Your task to perform on an android device: Search for the best selling coffee table on Crate & Barrel Image 0: 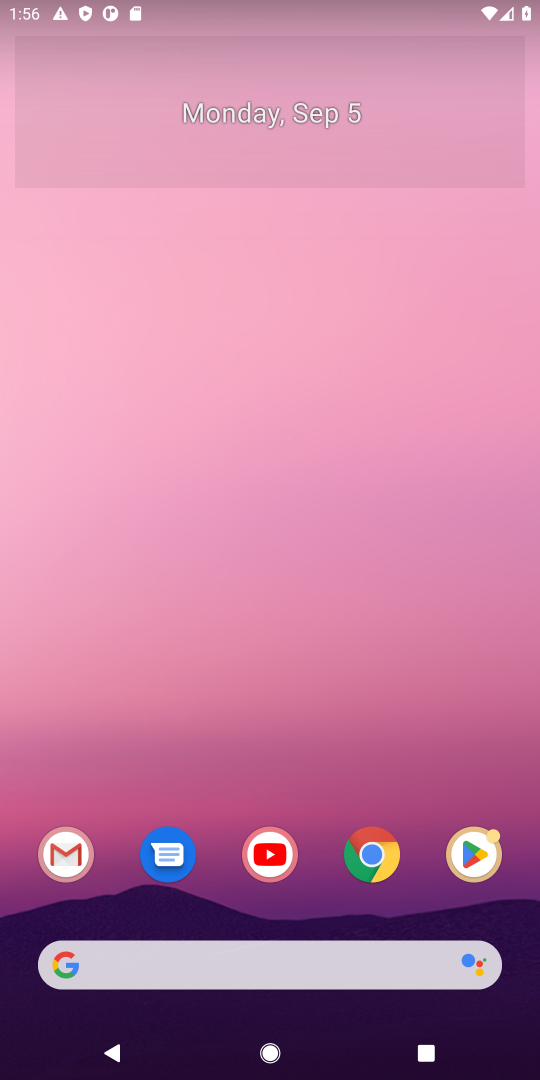
Step 0: click (386, 965)
Your task to perform on an android device: Search for the best selling coffee table on Crate & Barrel Image 1: 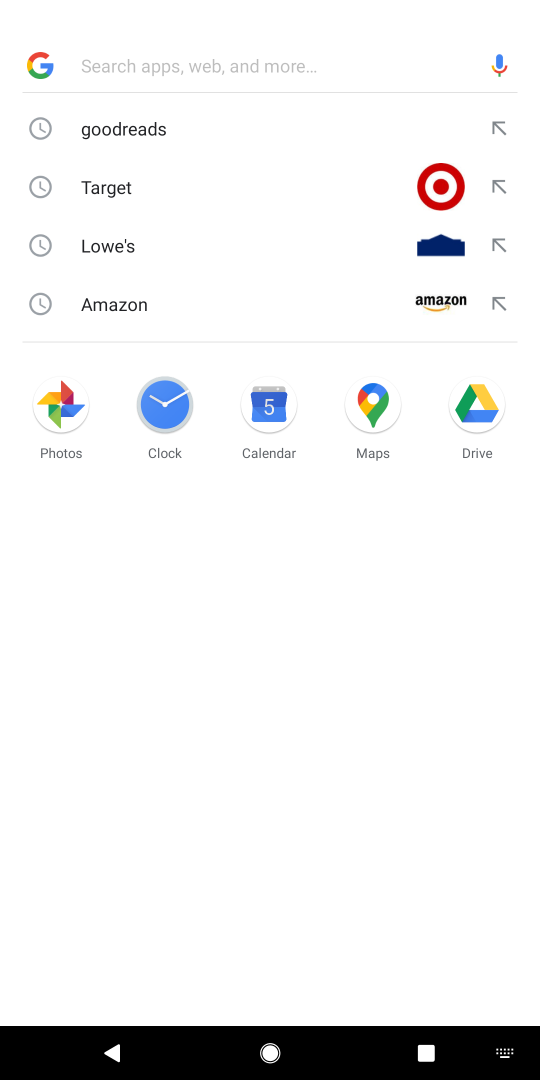
Step 1: type "crate barrel"
Your task to perform on an android device: Search for the best selling coffee table on Crate & Barrel Image 2: 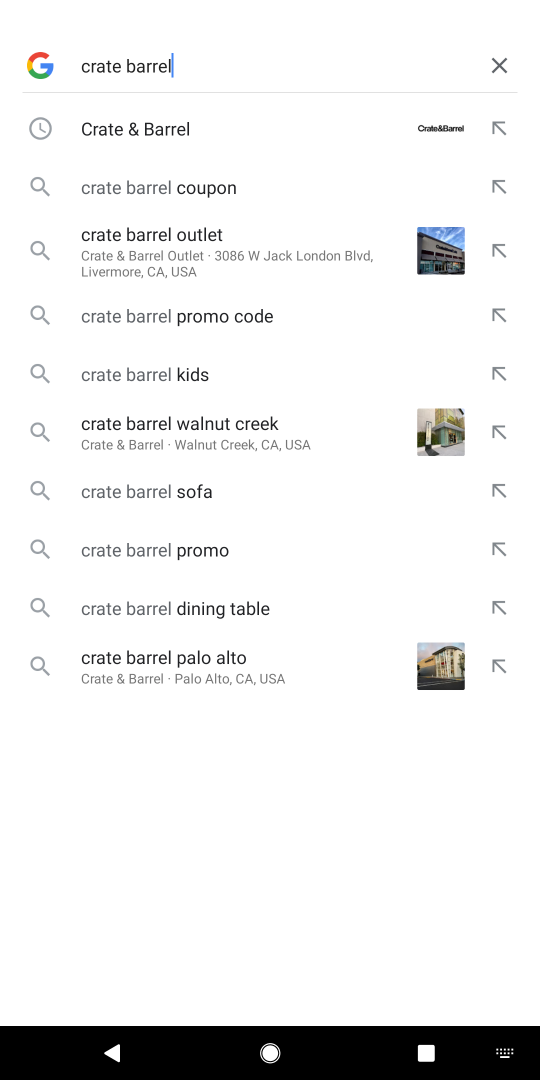
Step 2: press enter
Your task to perform on an android device: Search for the best selling coffee table on Crate & Barrel Image 3: 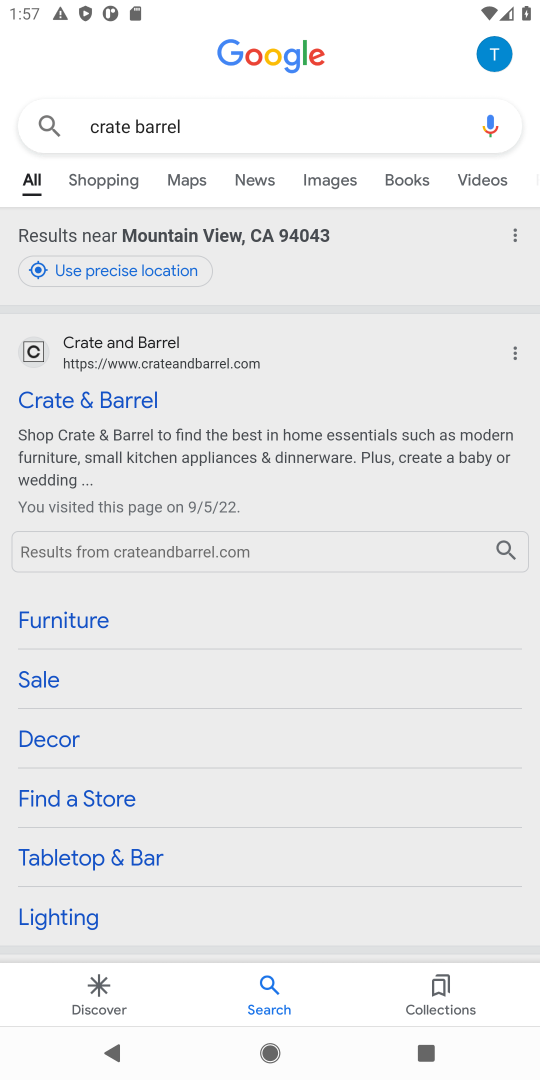
Step 3: click (125, 396)
Your task to perform on an android device: Search for the best selling coffee table on Crate & Barrel Image 4: 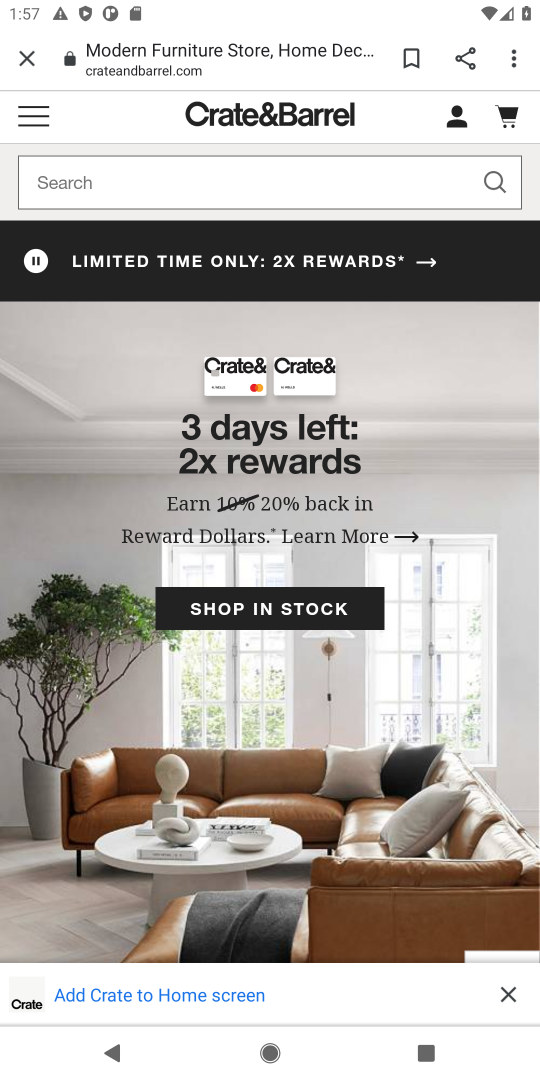
Step 4: click (132, 172)
Your task to perform on an android device: Search for the best selling coffee table on Crate & Barrel Image 5: 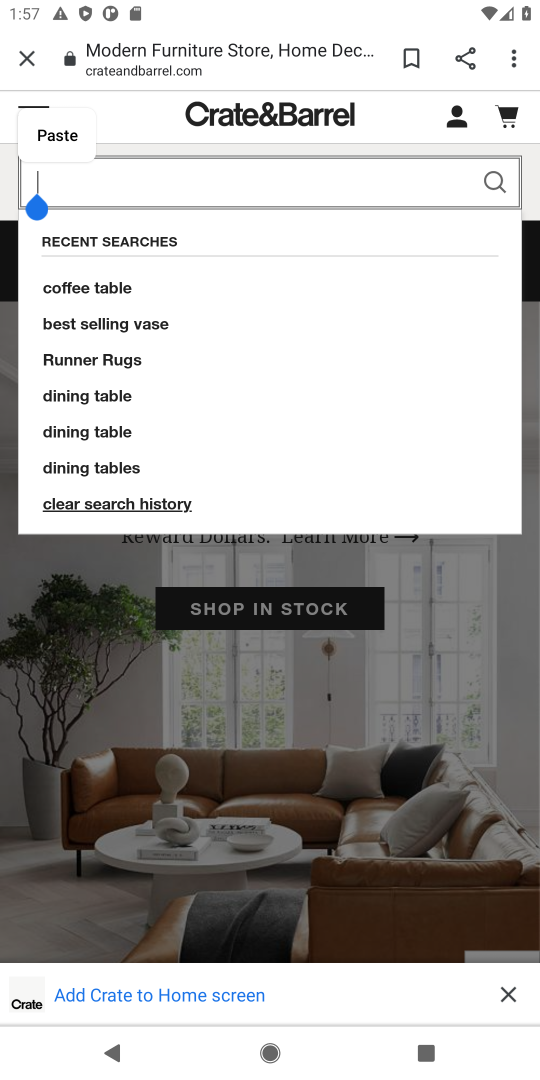
Step 5: press enter
Your task to perform on an android device: Search for the best selling coffee table on Crate & Barrel Image 6: 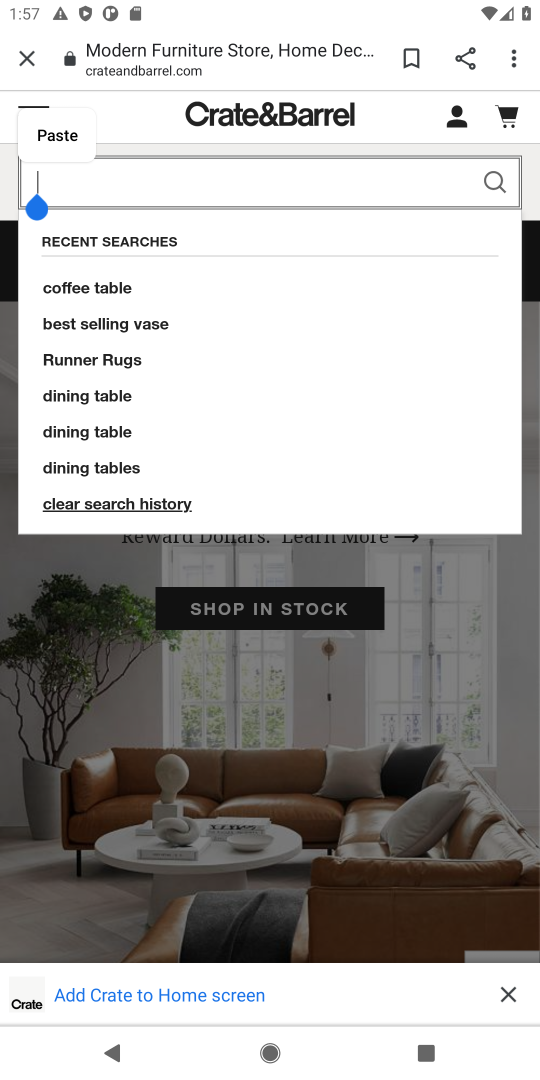
Step 6: type "best selling coffee"
Your task to perform on an android device: Search for the best selling coffee table on Crate & Barrel Image 7: 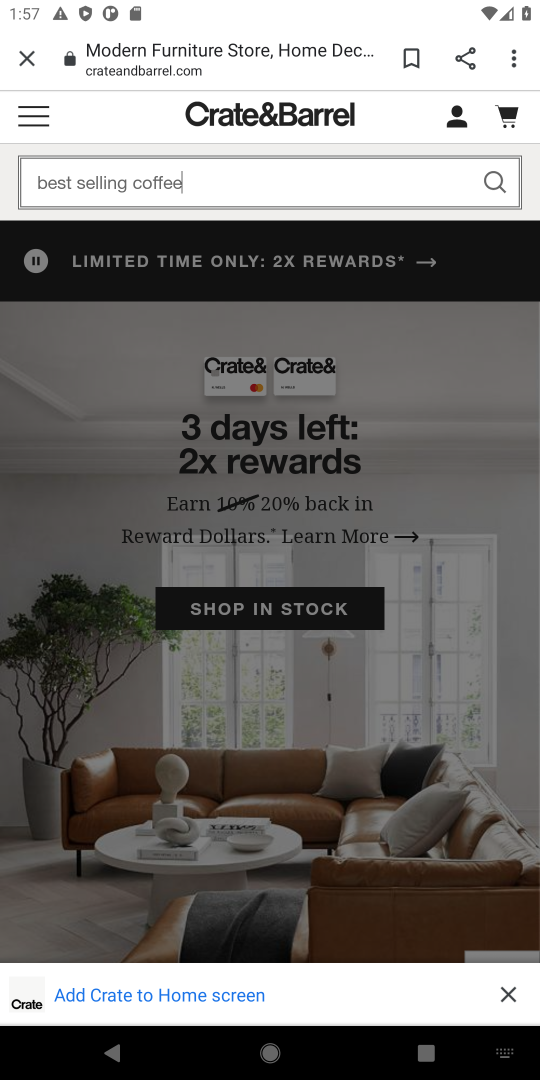
Step 7: click (498, 169)
Your task to perform on an android device: Search for the best selling coffee table on Crate & Barrel Image 8: 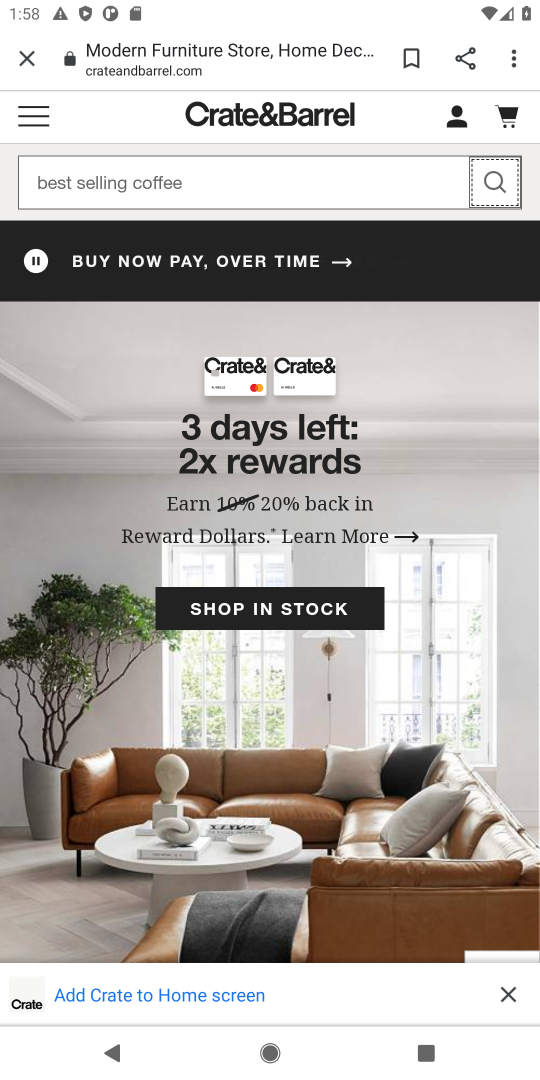
Step 8: click (496, 179)
Your task to perform on an android device: Search for the best selling coffee table on Crate & Barrel Image 9: 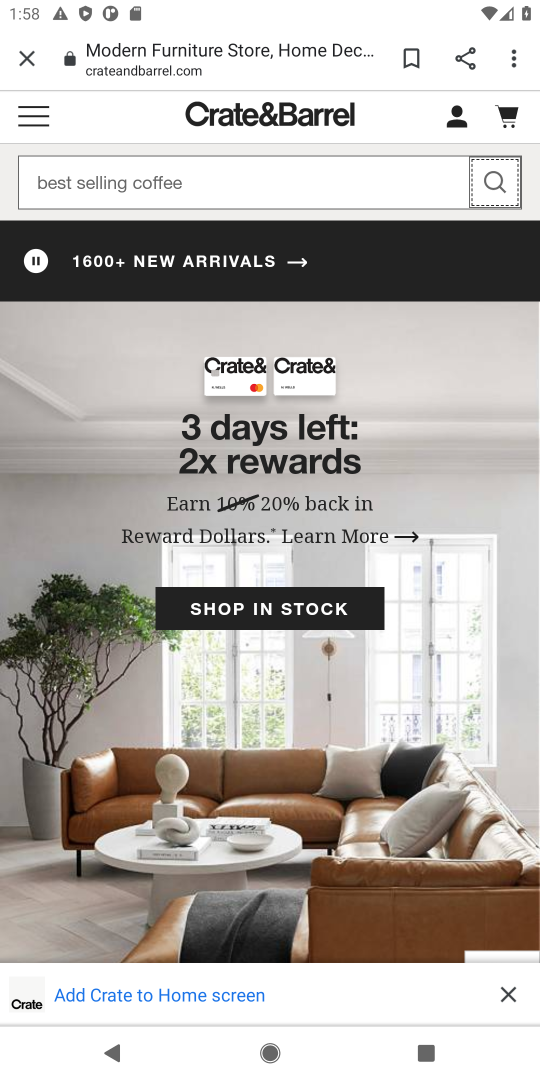
Step 9: click (488, 187)
Your task to perform on an android device: Search for the best selling coffee table on Crate & Barrel Image 10: 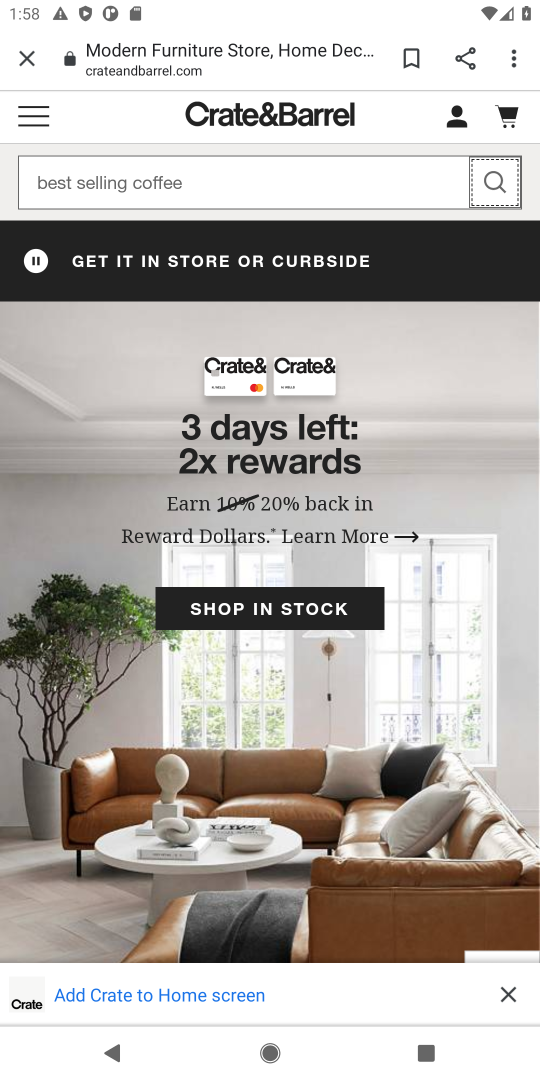
Step 10: click (497, 169)
Your task to perform on an android device: Search for the best selling coffee table on Crate & Barrel Image 11: 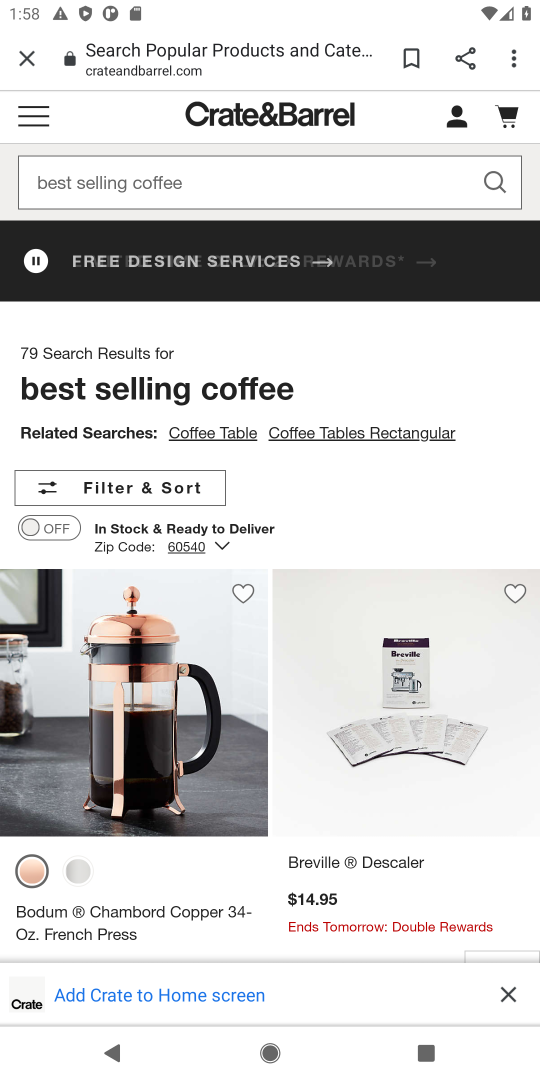
Step 11: task complete